Your task to perform on an android device: turn smart compose on in the gmail app Image 0: 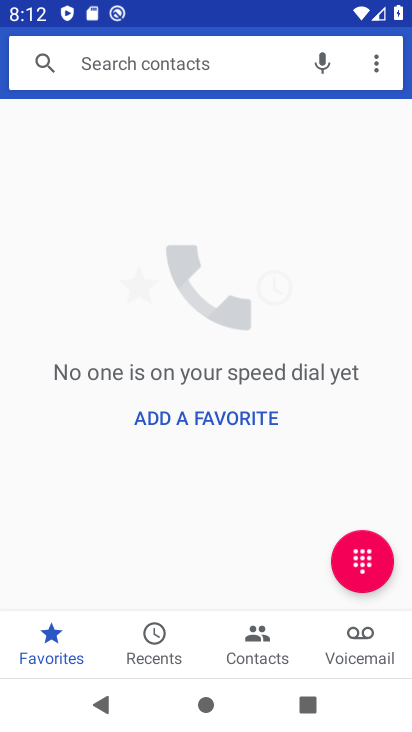
Step 0: press home button
Your task to perform on an android device: turn smart compose on in the gmail app Image 1: 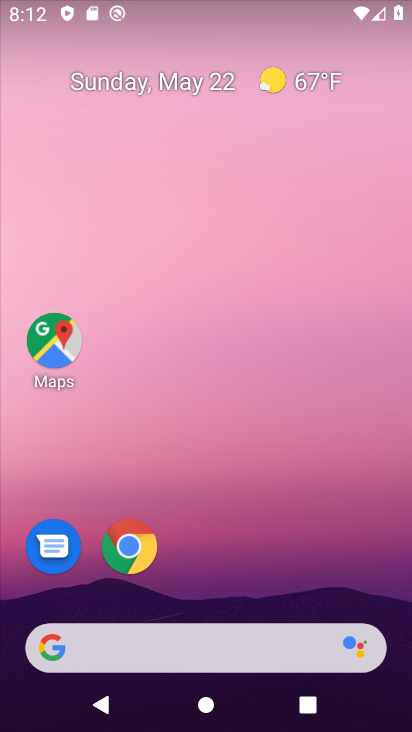
Step 1: drag from (168, 593) to (189, 3)
Your task to perform on an android device: turn smart compose on in the gmail app Image 2: 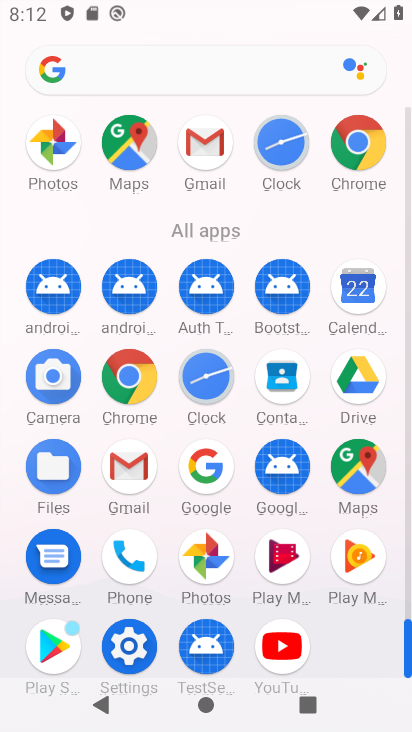
Step 2: click (125, 474)
Your task to perform on an android device: turn smart compose on in the gmail app Image 3: 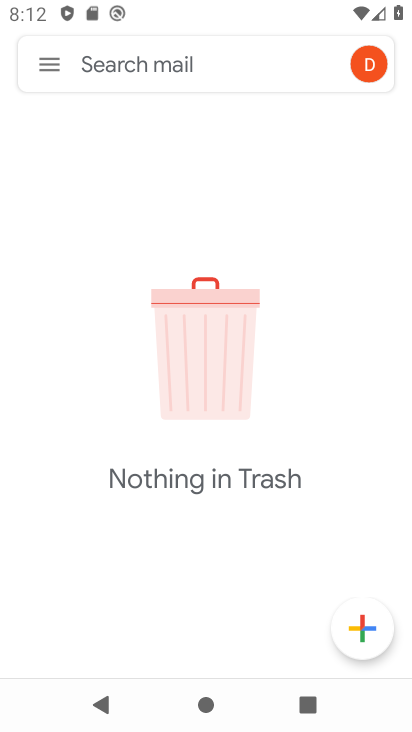
Step 3: click (56, 53)
Your task to perform on an android device: turn smart compose on in the gmail app Image 4: 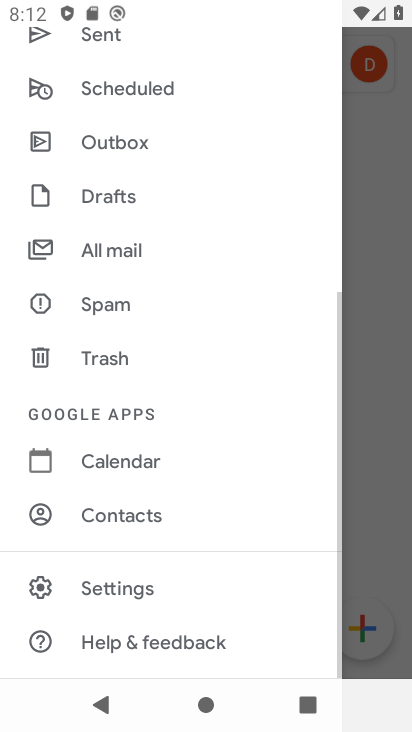
Step 4: click (152, 589)
Your task to perform on an android device: turn smart compose on in the gmail app Image 5: 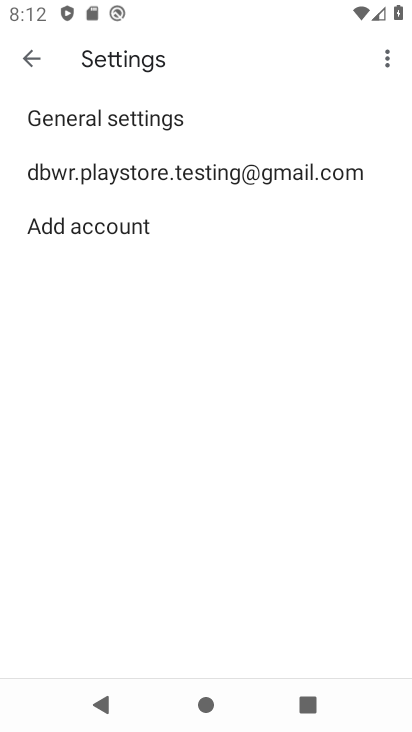
Step 5: click (102, 170)
Your task to perform on an android device: turn smart compose on in the gmail app Image 6: 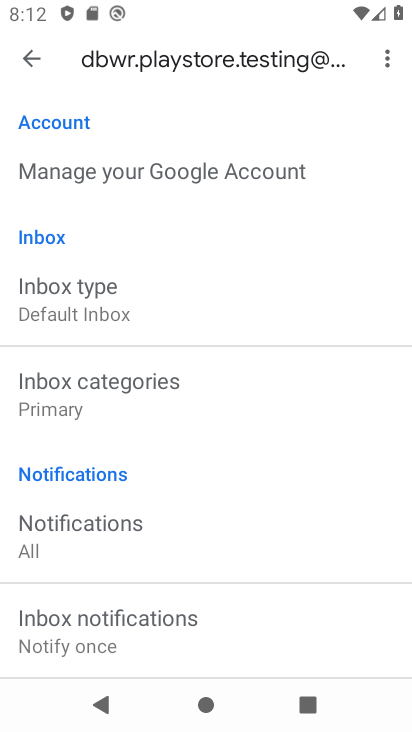
Step 6: task complete